Your task to perform on an android device: Open display settings Image 0: 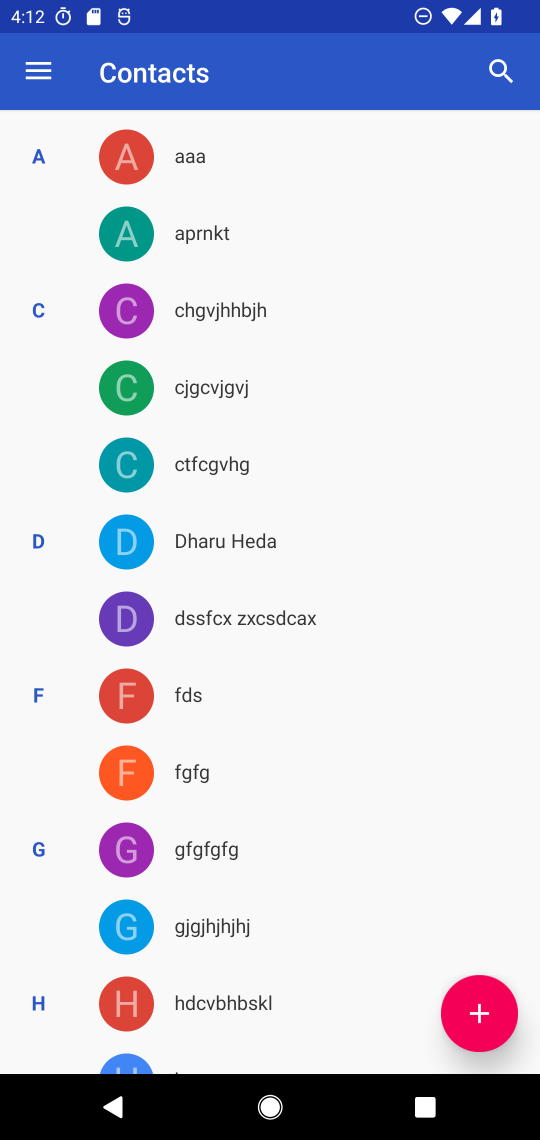
Step 0: press home button
Your task to perform on an android device: Open display settings Image 1: 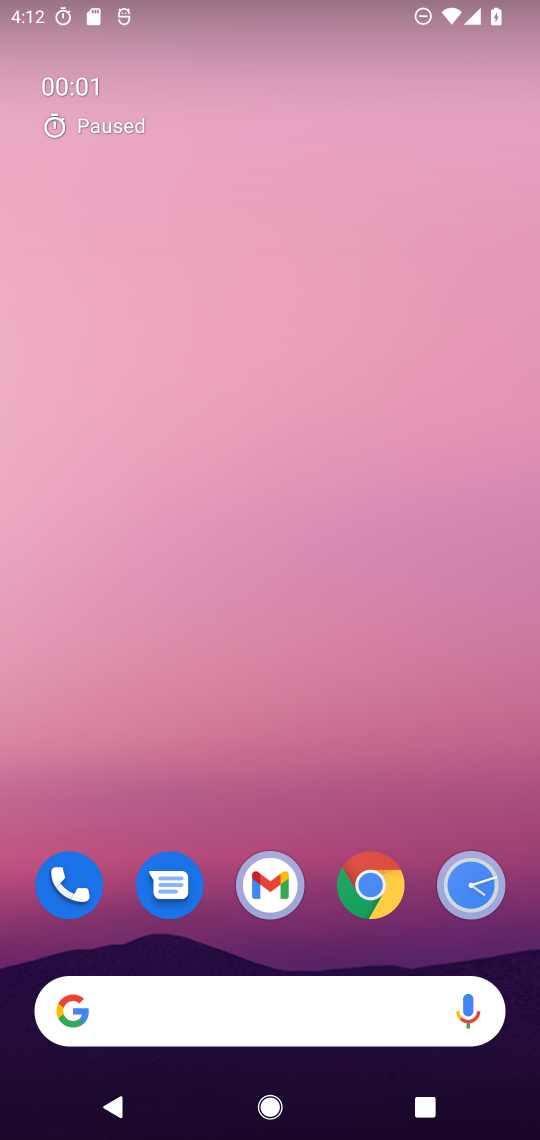
Step 1: drag from (207, 1035) to (235, 319)
Your task to perform on an android device: Open display settings Image 2: 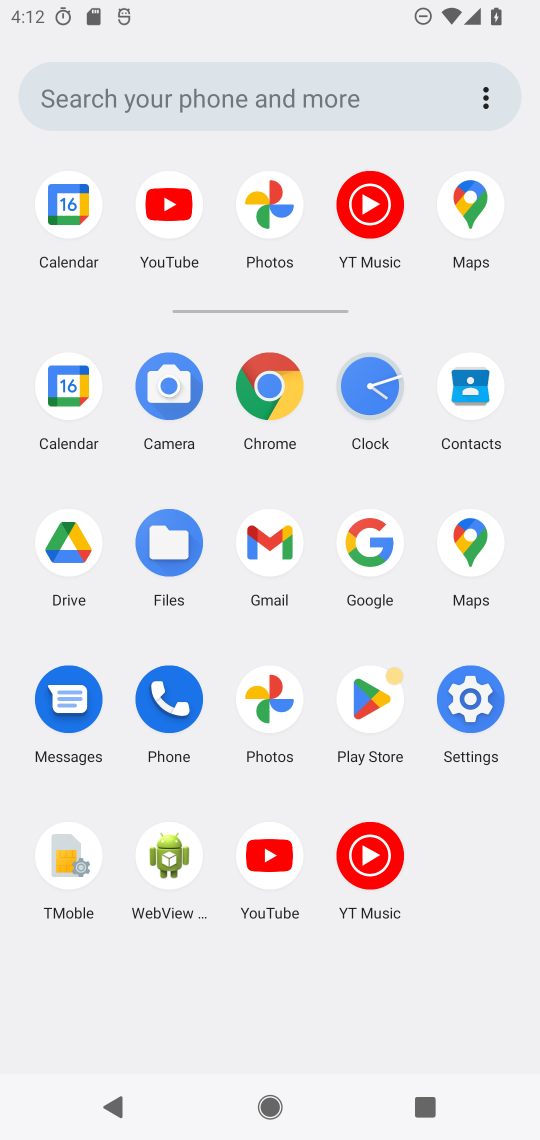
Step 2: click (458, 701)
Your task to perform on an android device: Open display settings Image 3: 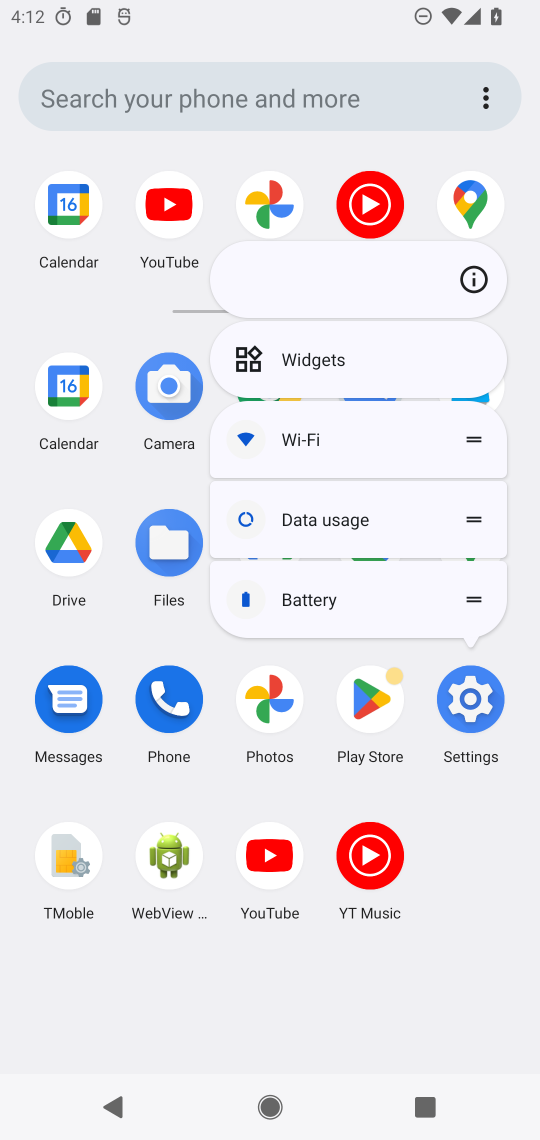
Step 3: click (458, 701)
Your task to perform on an android device: Open display settings Image 4: 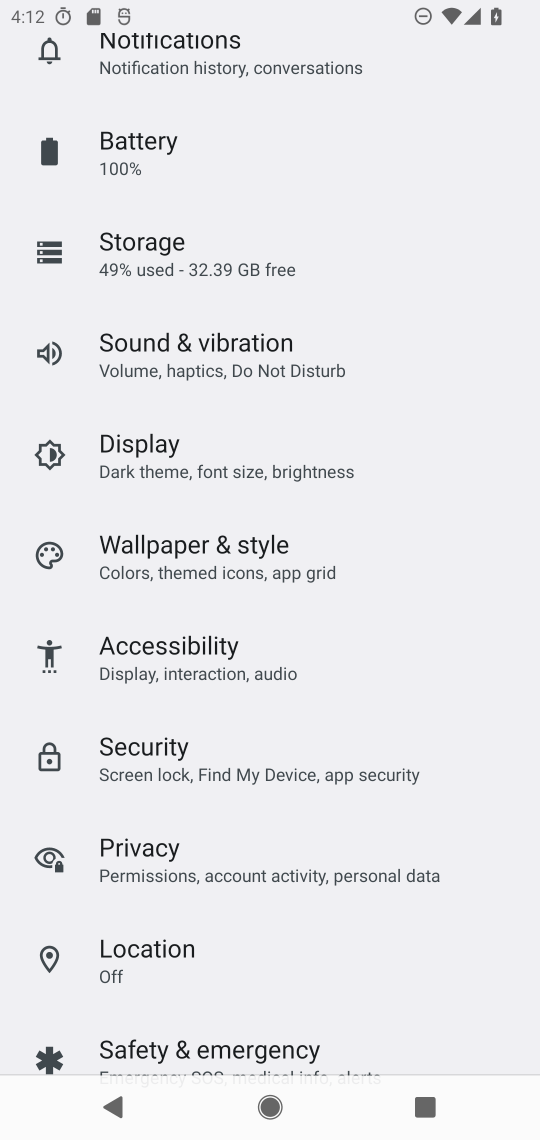
Step 4: click (215, 456)
Your task to perform on an android device: Open display settings Image 5: 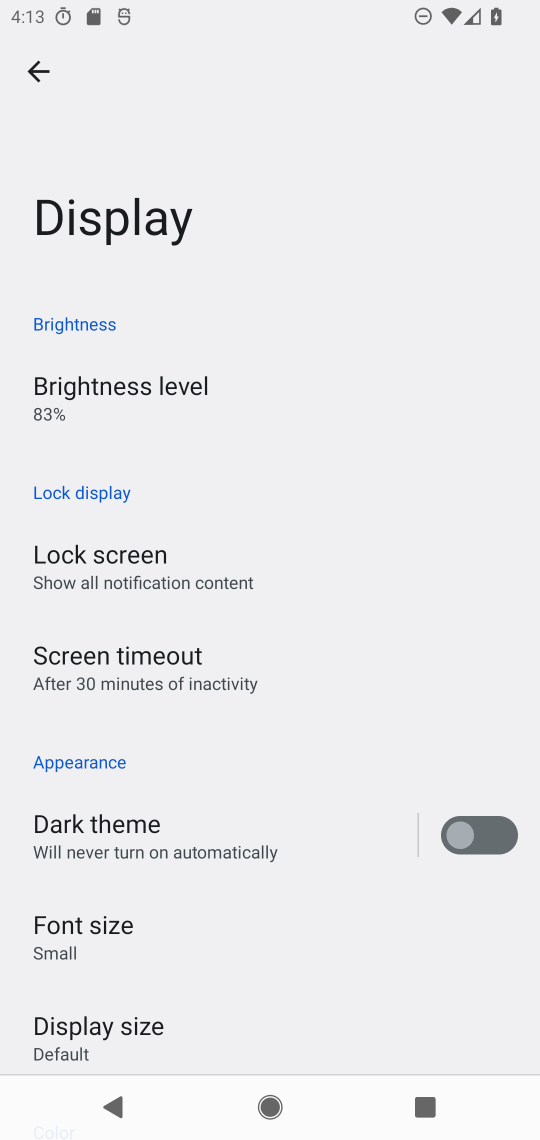
Step 5: task complete